Your task to perform on an android device: Show me productivity apps on the Play Store Image 0: 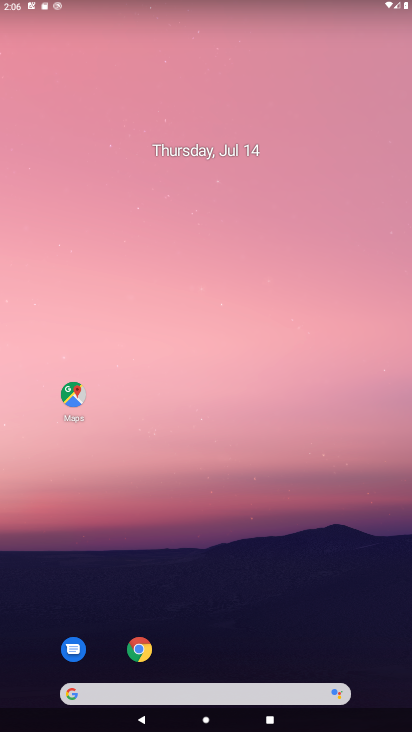
Step 0: drag from (267, 654) to (189, 167)
Your task to perform on an android device: Show me productivity apps on the Play Store Image 1: 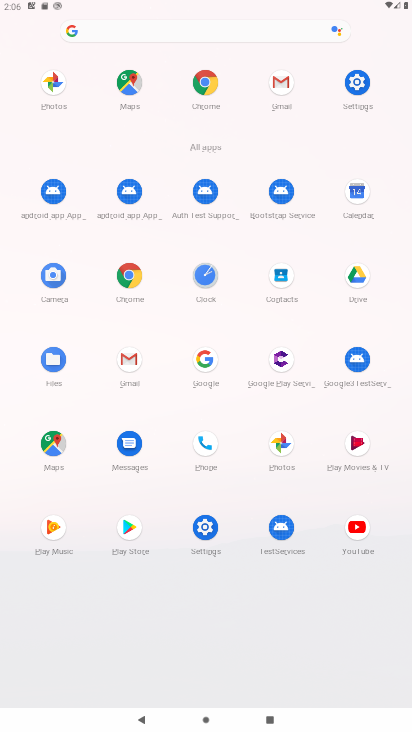
Step 1: click (133, 552)
Your task to perform on an android device: Show me productivity apps on the Play Store Image 2: 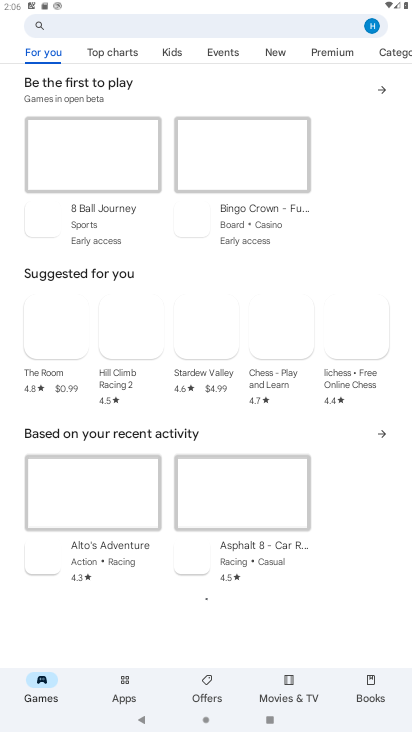
Step 2: click (145, 36)
Your task to perform on an android device: Show me productivity apps on the Play Store Image 3: 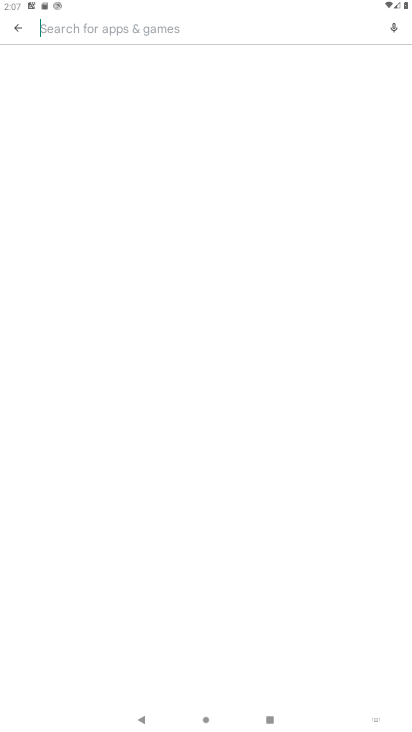
Step 3: click (136, 23)
Your task to perform on an android device: Show me productivity apps on the Play Store Image 4: 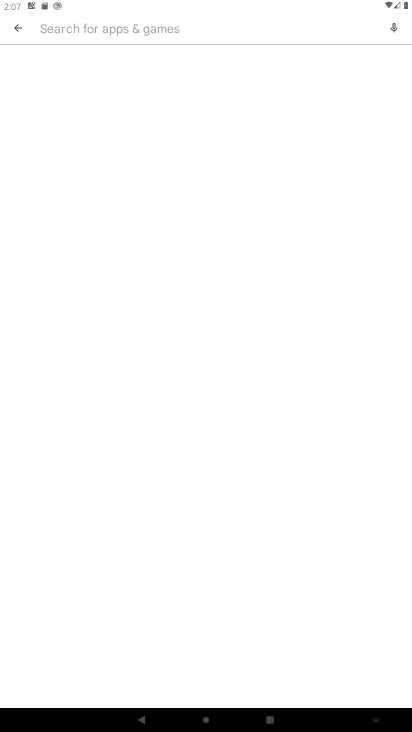
Step 4: type " productivity apps "
Your task to perform on an android device: Show me productivity apps on the Play Store Image 5: 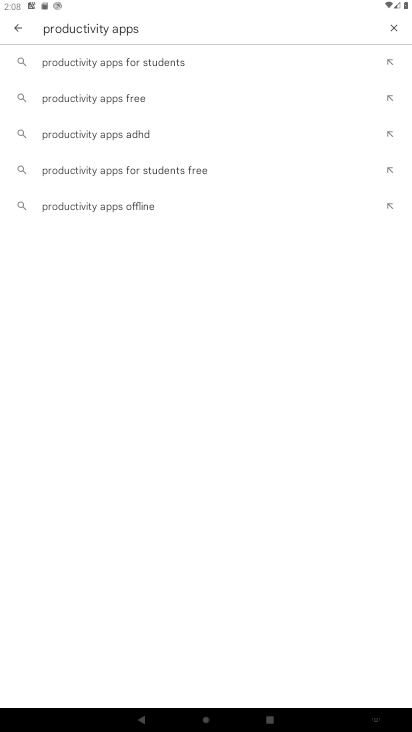
Step 5: click (137, 198)
Your task to perform on an android device: Show me productivity apps on the Play Store Image 6: 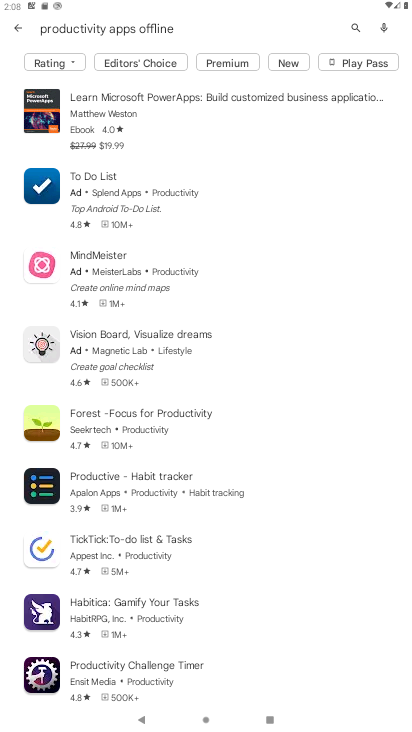
Step 6: task complete